Your task to perform on an android device: What's the weather going to be tomorrow? Image 0: 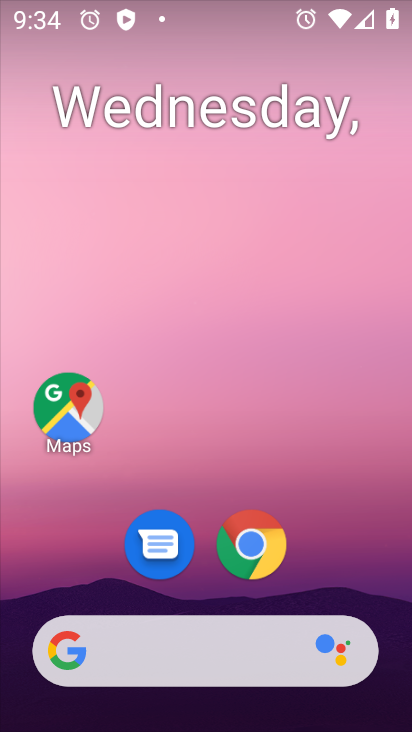
Step 0: drag from (393, 628) to (331, 212)
Your task to perform on an android device: What's the weather going to be tomorrow? Image 1: 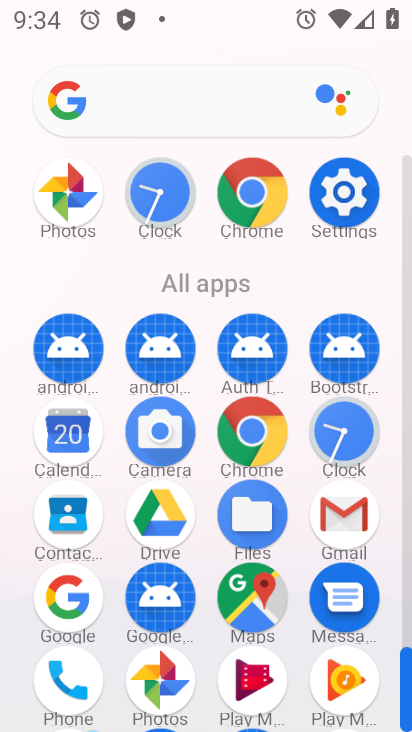
Step 1: click (258, 206)
Your task to perform on an android device: What's the weather going to be tomorrow? Image 2: 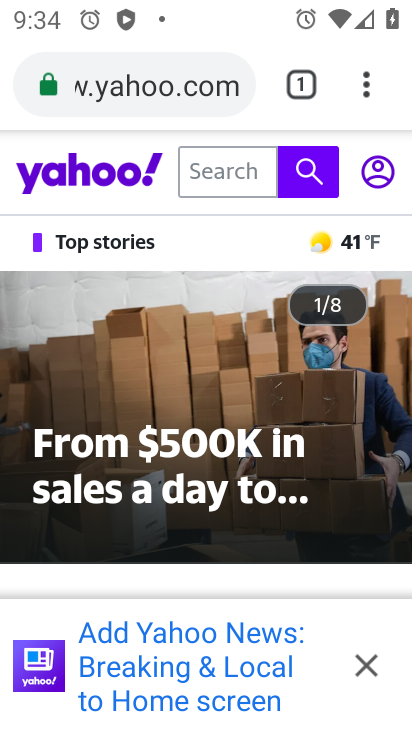
Step 2: click (170, 92)
Your task to perform on an android device: What's the weather going to be tomorrow? Image 3: 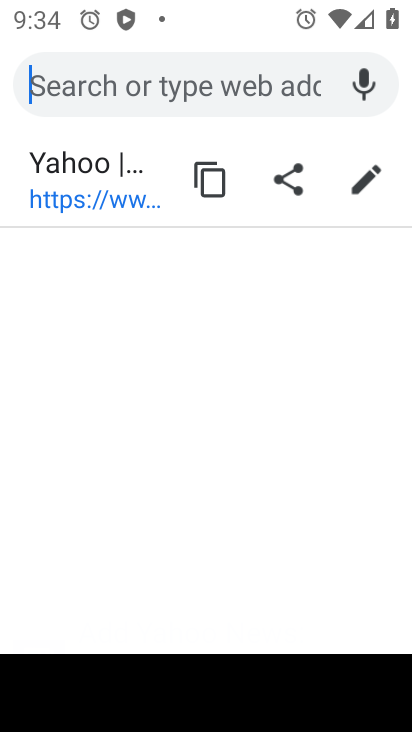
Step 3: type "What's the weather going to be tomorrow?"
Your task to perform on an android device: What's the weather going to be tomorrow? Image 4: 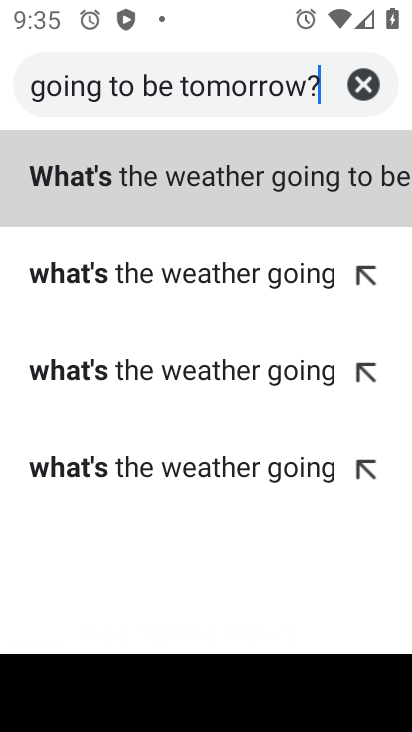
Step 4: press enter
Your task to perform on an android device: What's the weather going to be tomorrow? Image 5: 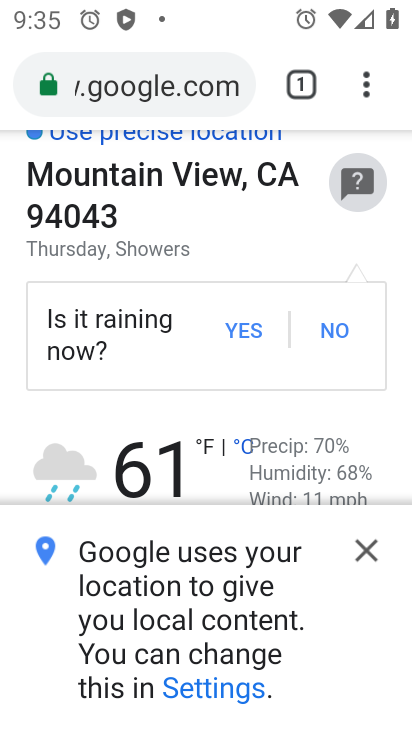
Step 5: task complete